Your task to perform on an android device: see creations saved in the google photos Image 0: 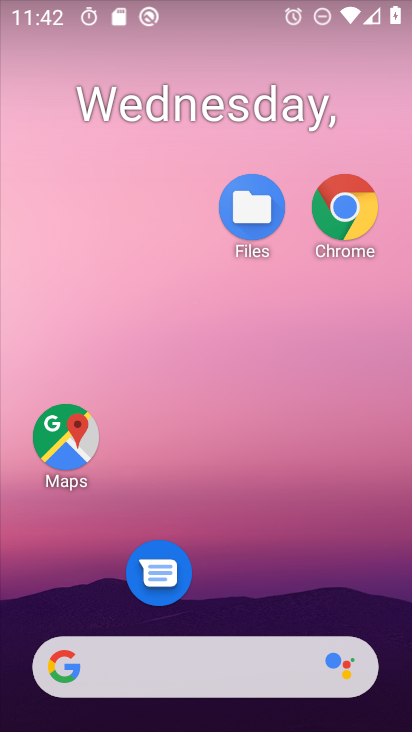
Step 0: drag from (222, 626) to (301, 255)
Your task to perform on an android device: see creations saved in the google photos Image 1: 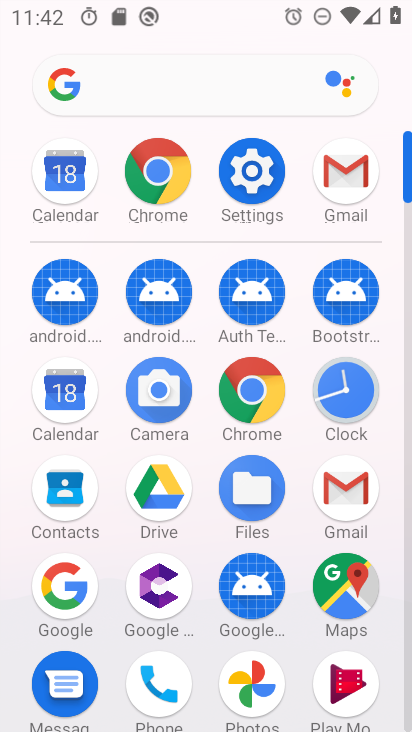
Step 1: click (247, 667)
Your task to perform on an android device: see creations saved in the google photos Image 2: 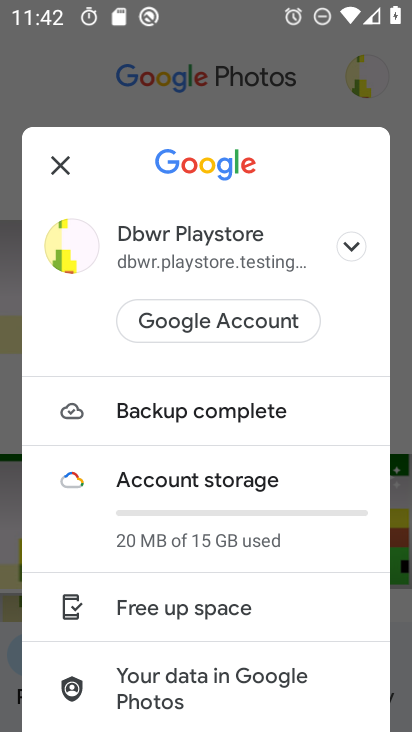
Step 2: task complete